Your task to perform on an android device: turn off notifications settings in the gmail app Image 0: 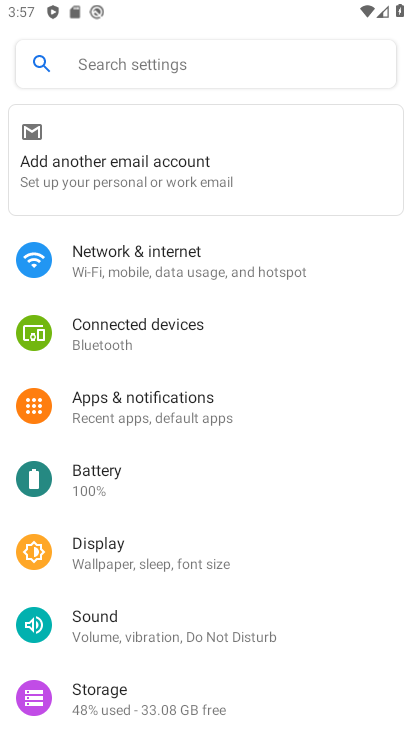
Step 0: press back button
Your task to perform on an android device: turn off notifications settings in the gmail app Image 1: 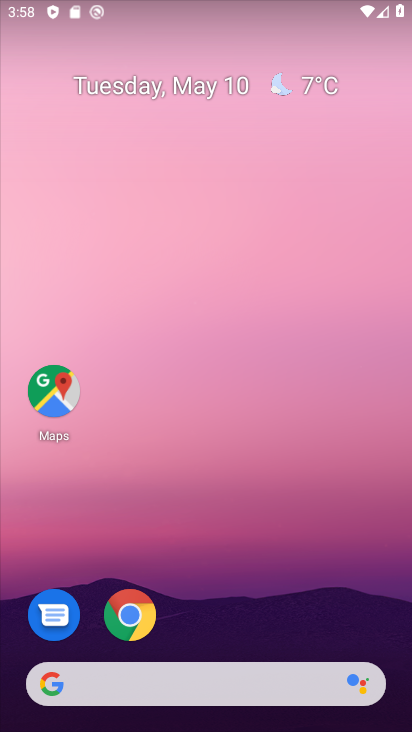
Step 1: drag from (242, 550) to (176, 26)
Your task to perform on an android device: turn off notifications settings in the gmail app Image 2: 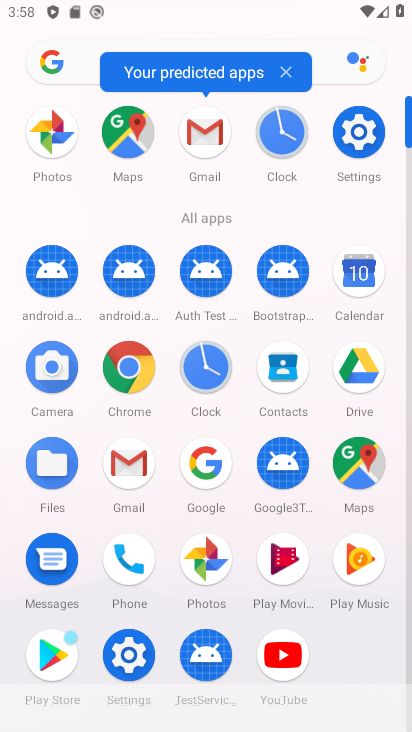
Step 2: click (129, 455)
Your task to perform on an android device: turn off notifications settings in the gmail app Image 3: 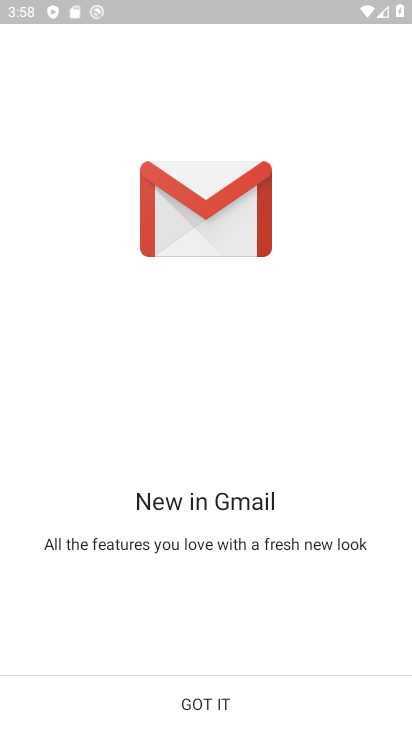
Step 3: click (204, 692)
Your task to perform on an android device: turn off notifications settings in the gmail app Image 4: 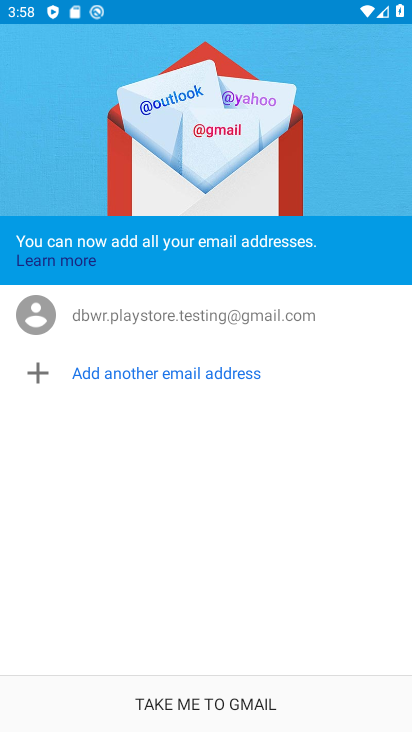
Step 4: click (209, 705)
Your task to perform on an android device: turn off notifications settings in the gmail app Image 5: 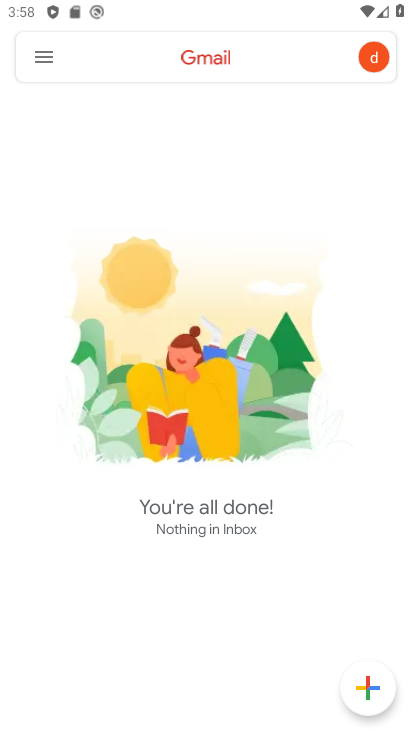
Step 5: click (42, 63)
Your task to perform on an android device: turn off notifications settings in the gmail app Image 6: 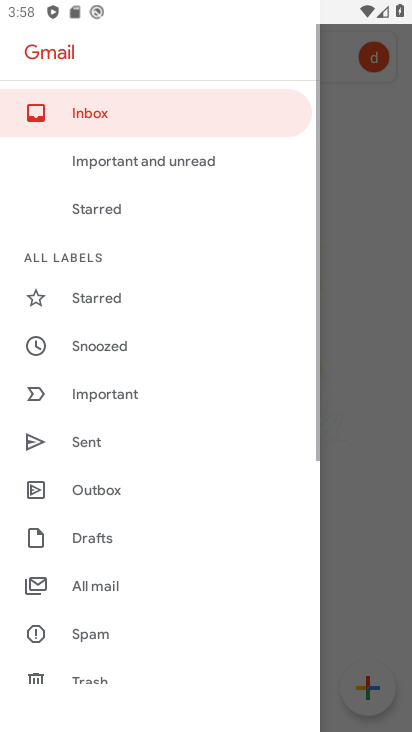
Step 6: drag from (167, 610) to (183, 124)
Your task to perform on an android device: turn off notifications settings in the gmail app Image 7: 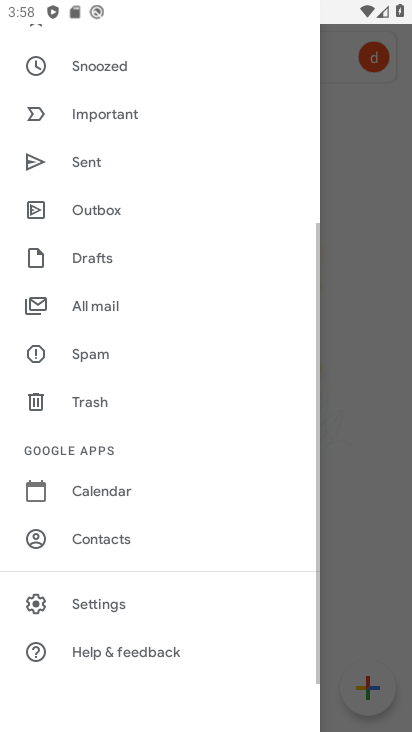
Step 7: click (100, 612)
Your task to perform on an android device: turn off notifications settings in the gmail app Image 8: 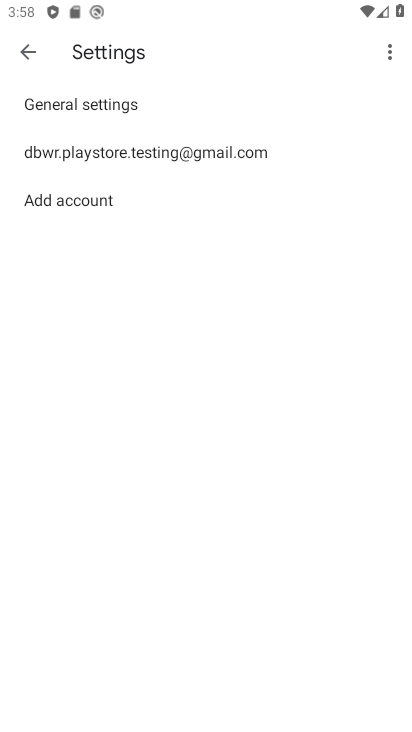
Step 8: click (148, 154)
Your task to perform on an android device: turn off notifications settings in the gmail app Image 9: 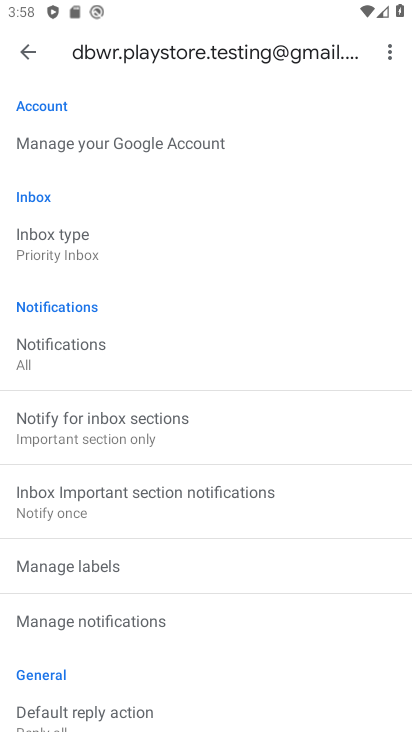
Step 9: drag from (204, 638) to (273, 233)
Your task to perform on an android device: turn off notifications settings in the gmail app Image 10: 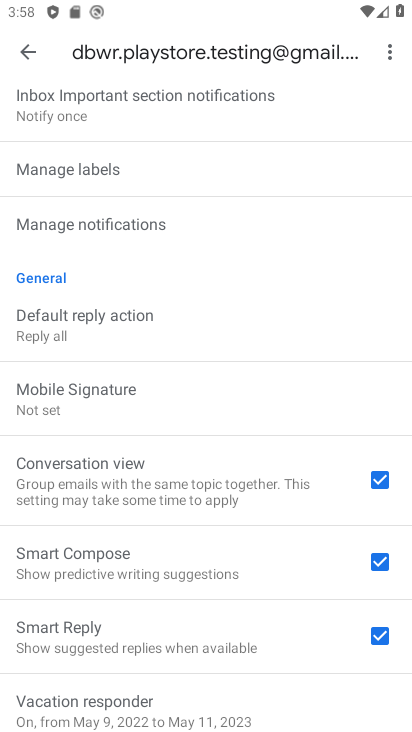
Step 10: click (139, 225)
Your task to perform on an android device: turn off notifications settings in the gmail app Image 11: 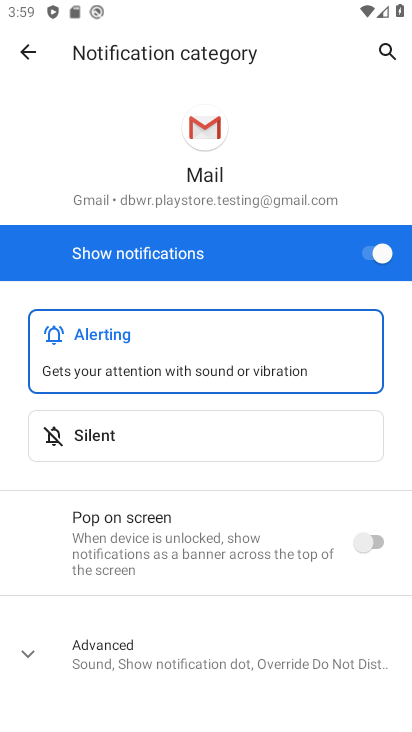
Step 11: click (378, 251)
Your task to perform on an android device: turn off notifications settings in the gmail app Image 12: 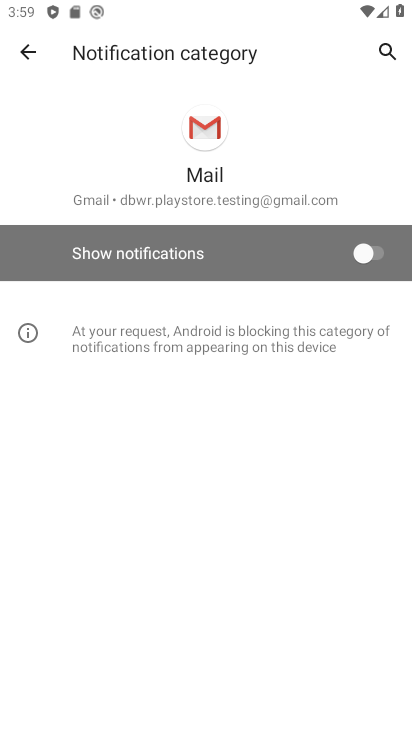
Step 12: task complete